Your task to perform on an android device: turn off wifi Image 0: 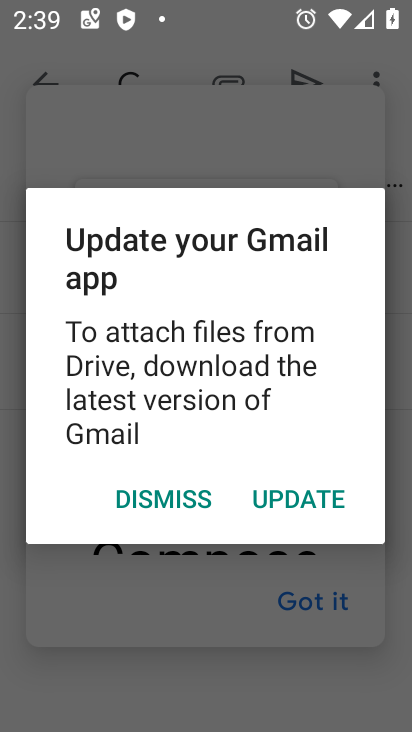
Step 0: press home button
Your task to perform on an android device: turn off wifi Image 1: 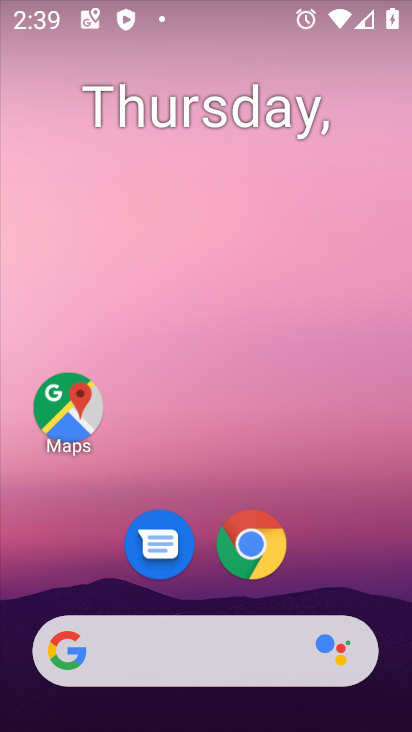
Step 1: drag from (226, 432) to (295, 101)
Your task to perform on an android device: turn off wifi Image 2: 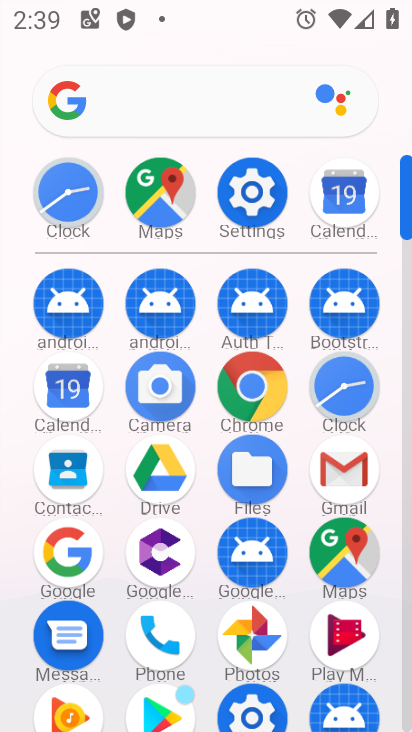
Step 2: click (261, 182)
Your task to perform on an android device: turn off wifi Image 3: 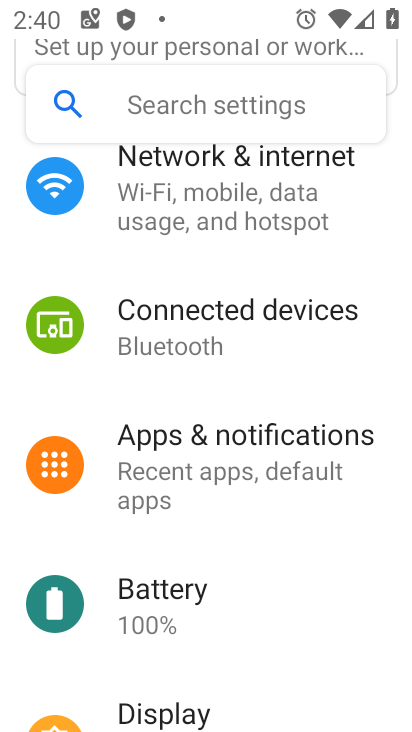
Step 3: click (261, 182)
Your task to perform on an android device: turn off wifi Image 4: 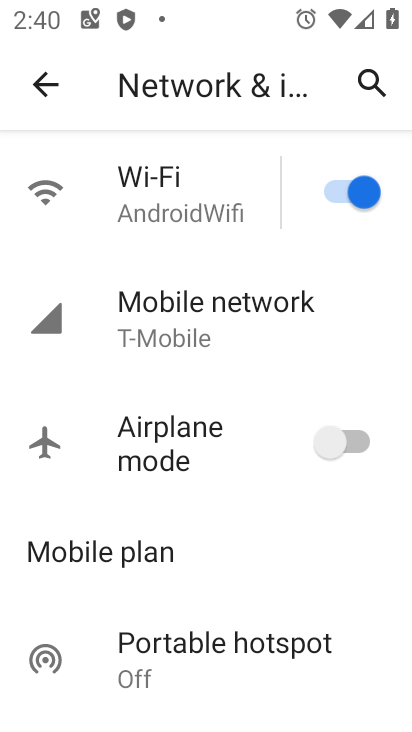
Step 4: click (344, 193)
Your task to perform on an android device: turn off wifi Image 5: 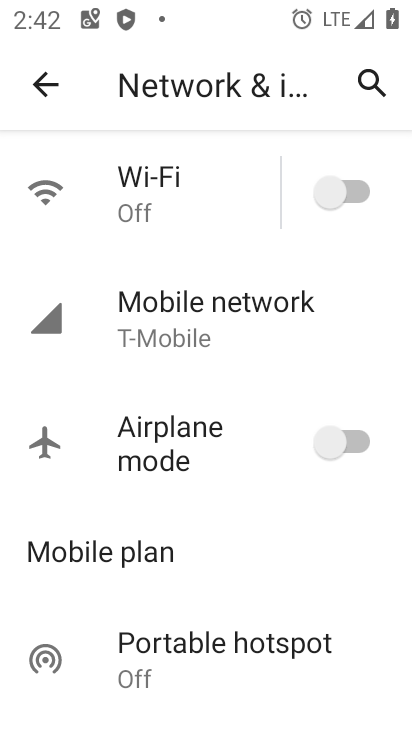
Step 5: task complete